Your task to perform on an android device: change the upload size in google photos Image 0: 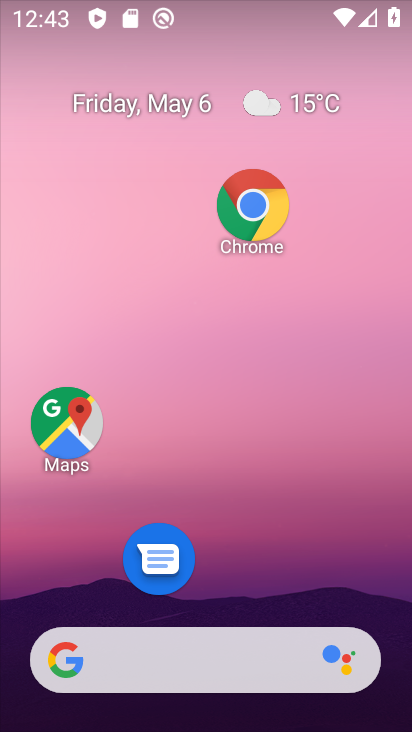
Step 0: drag from (205, 618) to (201, 36)
Your task to perform on an android device: change the upload size in google photos Image 1: 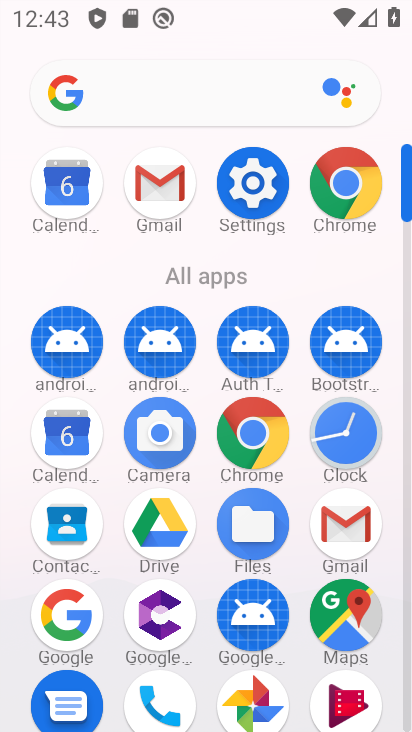
Step 1: click (236, 713)
Your task to perform on an android device: change the upload size in google photos Image 2: 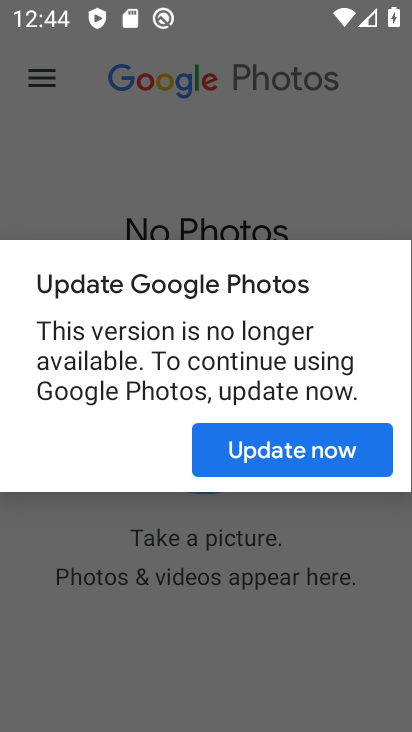
Step 2: click (343, 447)
Your task to perform on an android device: change the upload size in google photos Image 3: 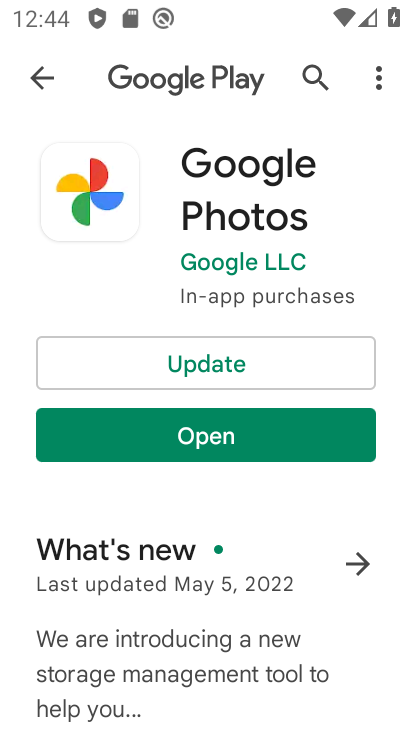
Step 3: click (351, 438)
Your task to perform on an android device: change the upload size in google photos Image 4: 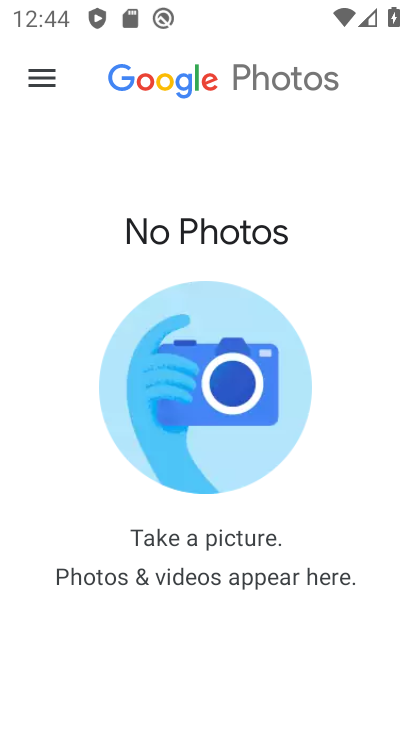
Step 4: click (41, 78)
Your task to perform on an android device: change the upload size in google photos Image 5: 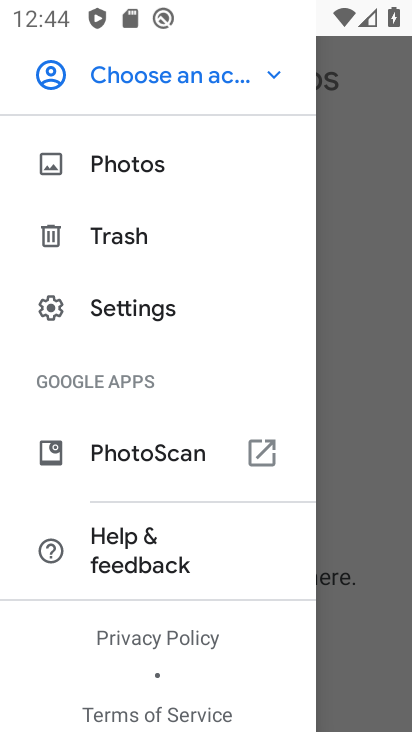
Step 5: click (156, 312)
Your task to perform on an android device: change the upload size in google photos Image 6: 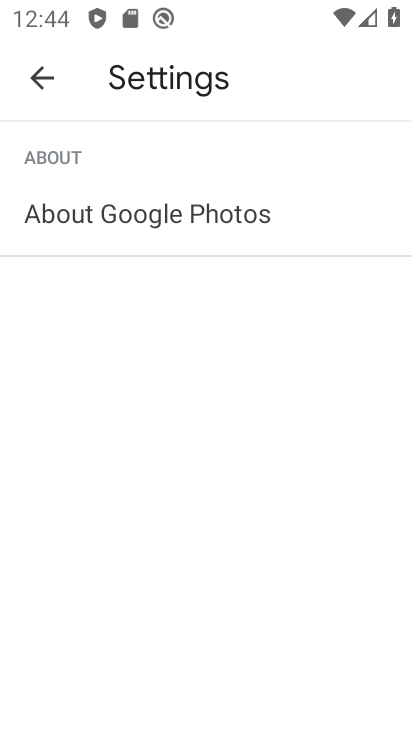
Step 6: click (44, 78)
Your task to perform on an android device: change the upload size in google photos Image 7: 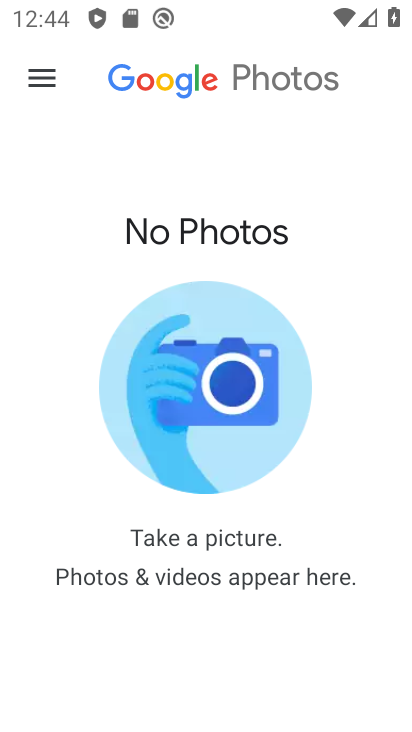
Step 7: click (44, 78)
Your task to perform on an android device: change the upload size in google photos Image 8: 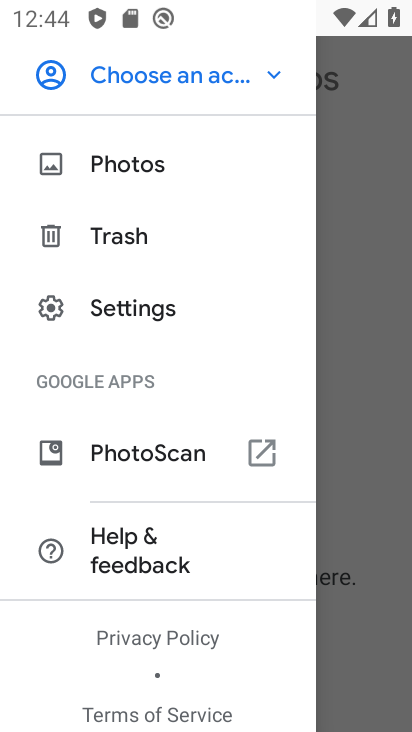
Step 8: click (84, 72)
Your task to perform on an android device: change the upload size in google photos Image 9: 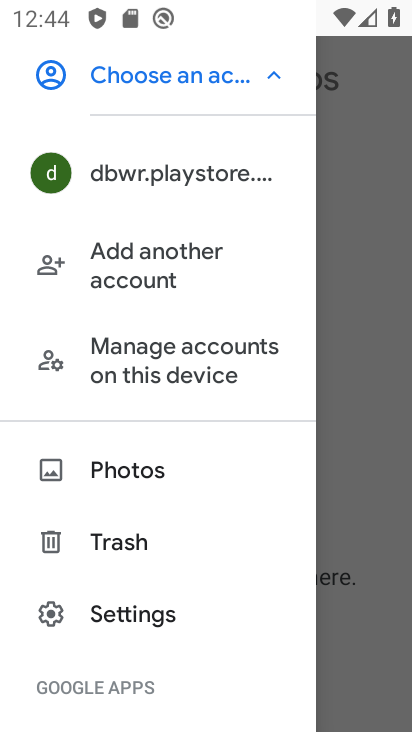
Step 9: click (173, 158)
Your task to perform on an android device: change the upload size in google photos Image 10: 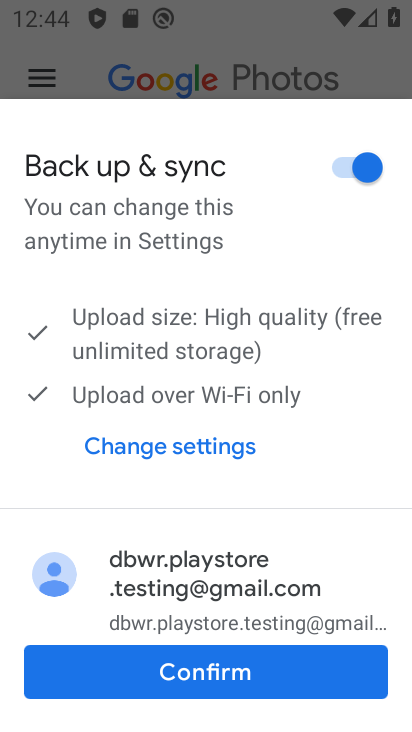
Step 10: click (297, 641)
Your task to perform on an android device: change the upload size in google photos Image 11: 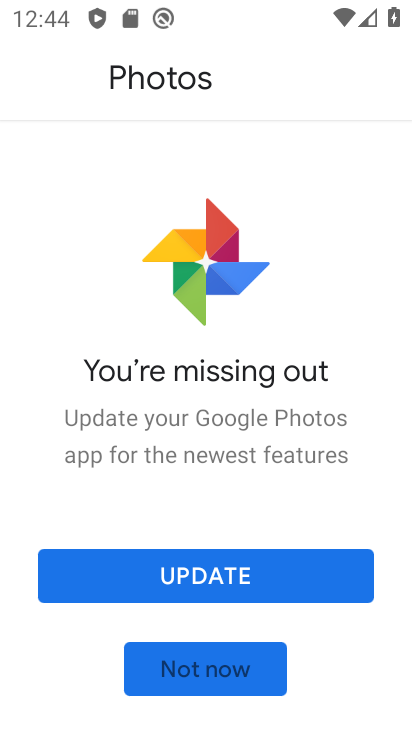
Step 11: click (232, 657)
Your task to perform on an android device: change the upload size in google photos Image 12: 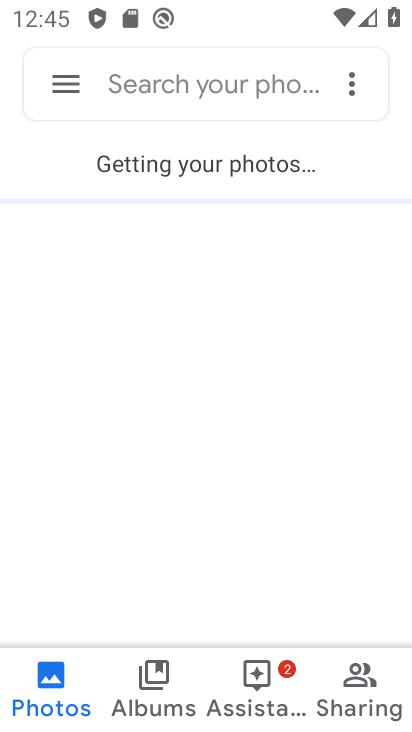
Step 12: click (61, 73)
Your task to perform on an android device: change the upload size in google photos Image 13: 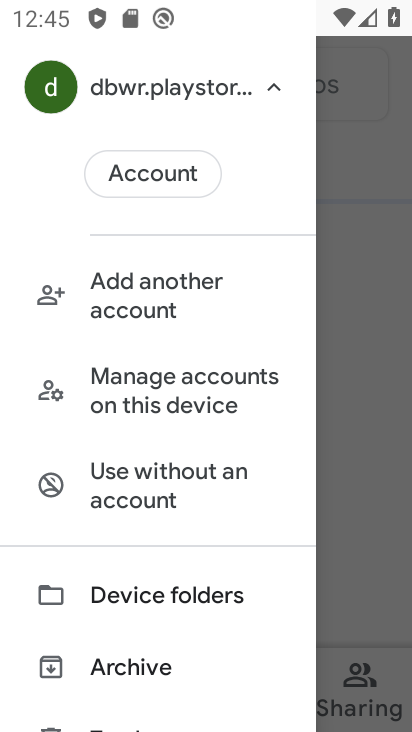
Step 13: drag from (210, 557) to (167, 32)
Your task to perform on an android device: change the upload size in google photos Image 14: 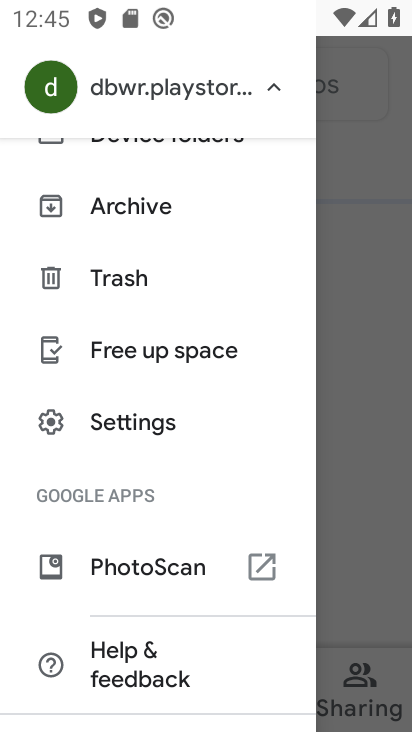
Step 14: click (160, 426)
Your task to perform on an android device: change the upload size in google photos Image 15: 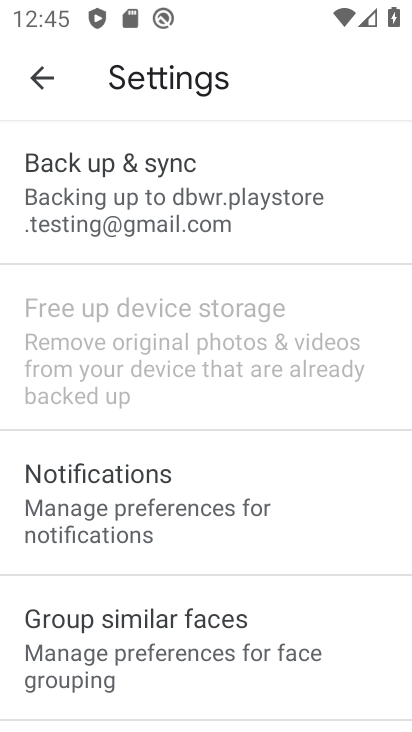
Step 15: click (134, 204)
Your task to perform on an android device: change the upload size in google photos Image 16: 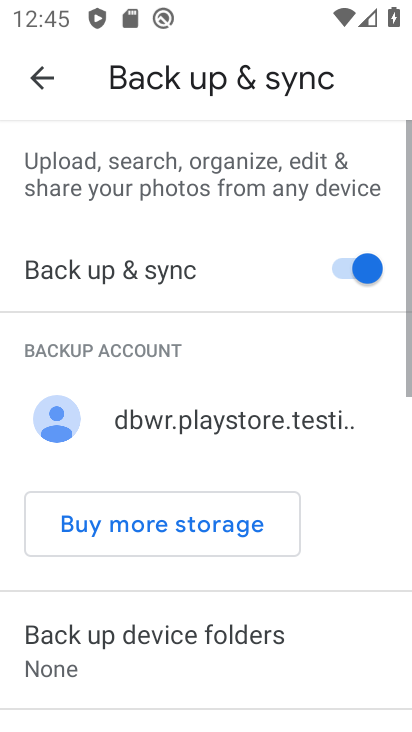
Step 16: click (134, 204)
Your task to perform on an android device: change the upload size in google photos Image 17: 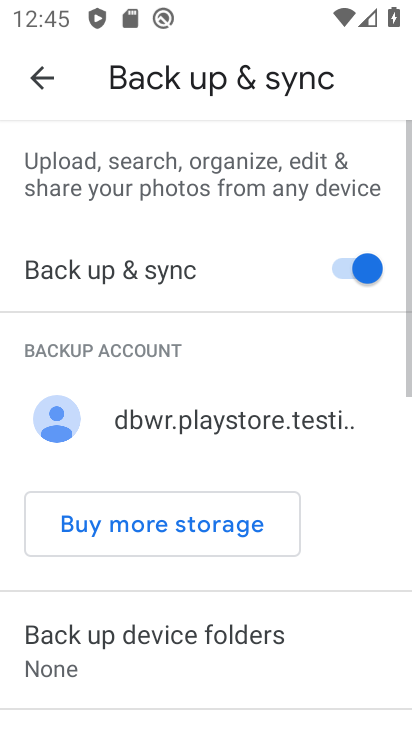
Step 17: drag from (116, 612) to (36, 158)
Your task to perform on an android device: change the upload size in google photos Image 18: 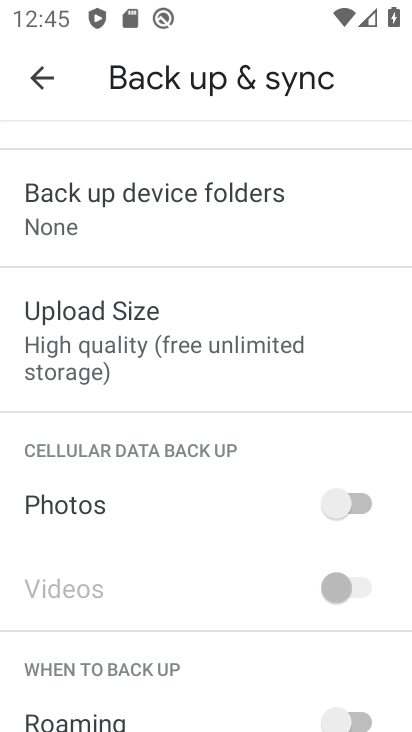
Step 18: click (156, 359)
Your task to perform on an android device: change the upload size in google photos Image 19: 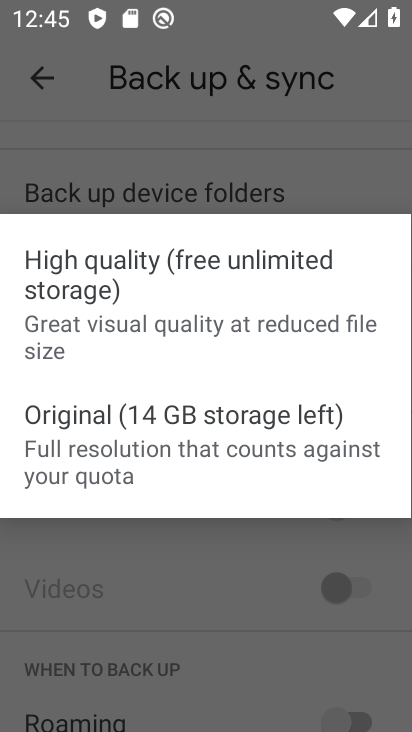
Step 19: click (140, 413)
Your task to perform on an android device: change the upload size in google photos Image 20: 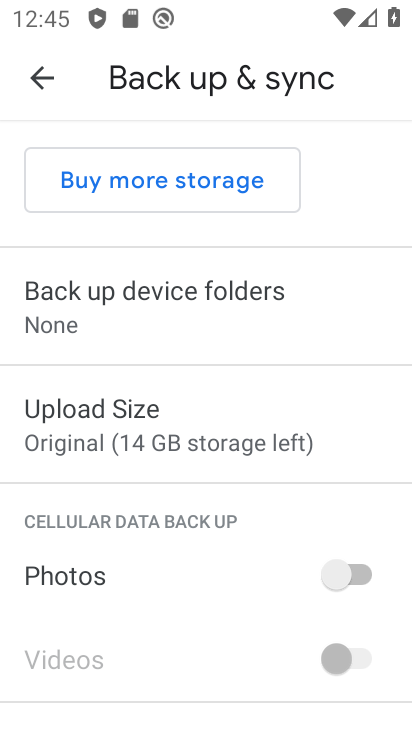
Step 20: task complete